Your task to perform on an android device: turn on bluetooth scan Image 0: 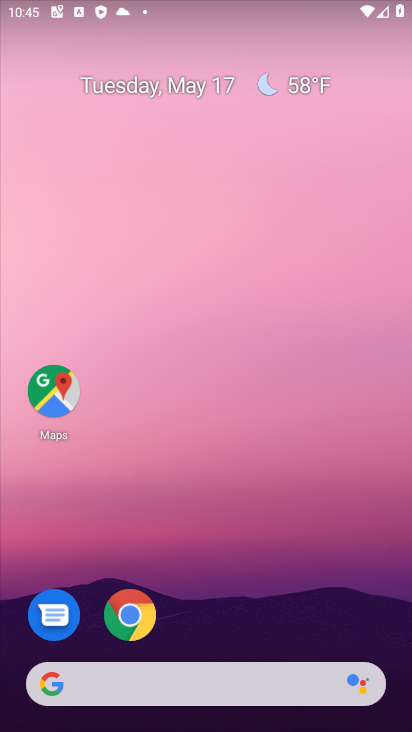
Step 0: drag from (396, 624) to (330, 101)
Your task to perform on an android device: turn on bluetooth scan Image 1: 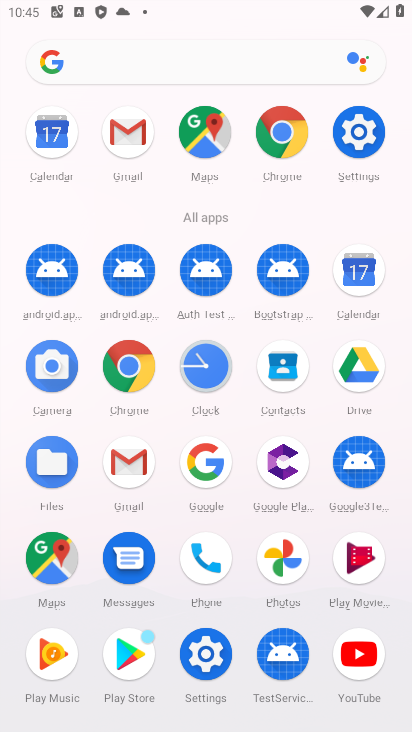
Step 1: click (206, 654)
Your task to perform on an android device: turn on bluetooth scan Image 2: 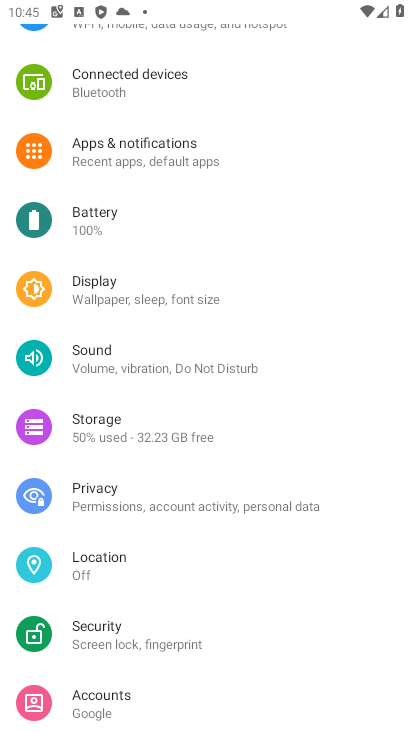
Step 2: click (109, 558)
Your task to perform on an android device: turn on bluetooth scan Image 3: 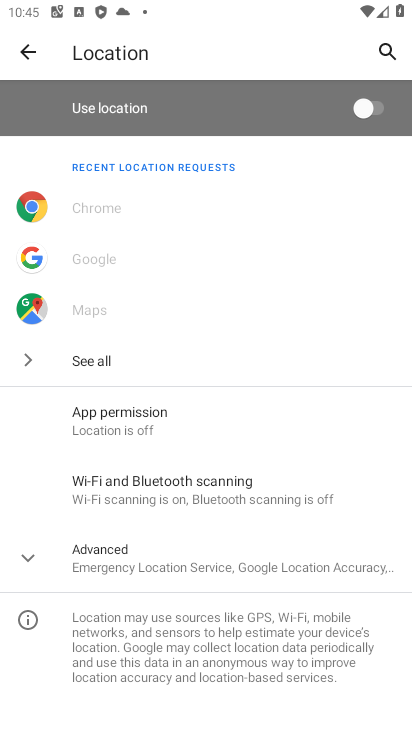
Step 3: click (165, 486)
Your task to perform on an android device: turn on bluetooth scan Image 4: 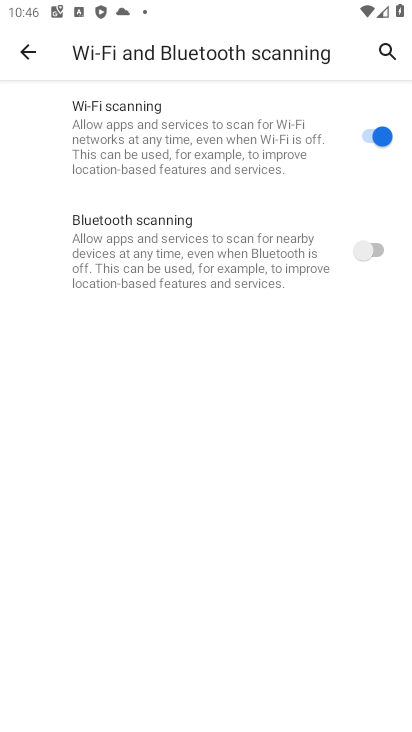
Step 4: click (378, 250)
Your task to perform on an android device: turn on bluetooth scan Image 5: 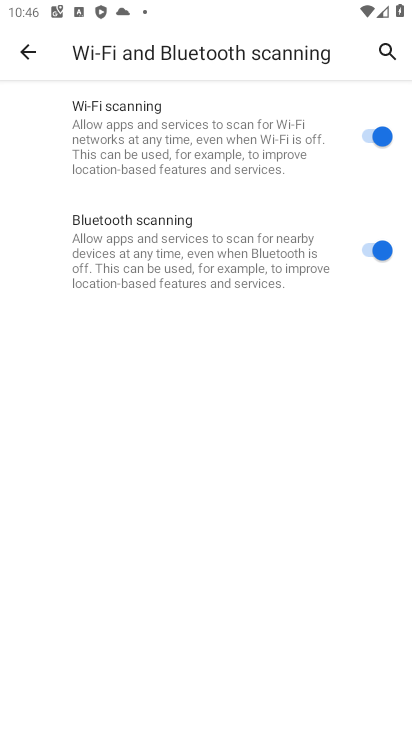
Step 5: task complete